Your task to perform on an android device: Do I have any events tomorrow? Image 0: 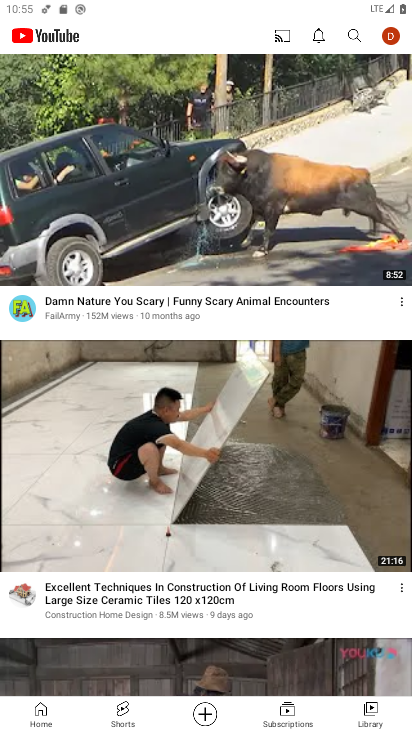
Step 0: press home button
Your task to perform on an android device: Do I have any events tomorrow? Image 1: 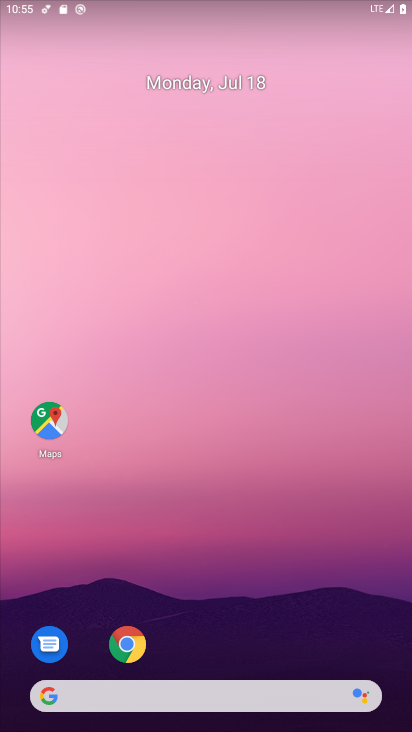
Step 1: drag from (329, 615) to (340, 88)
Your task to perform on an android device: Do I have any events tomorrow? Image 2: 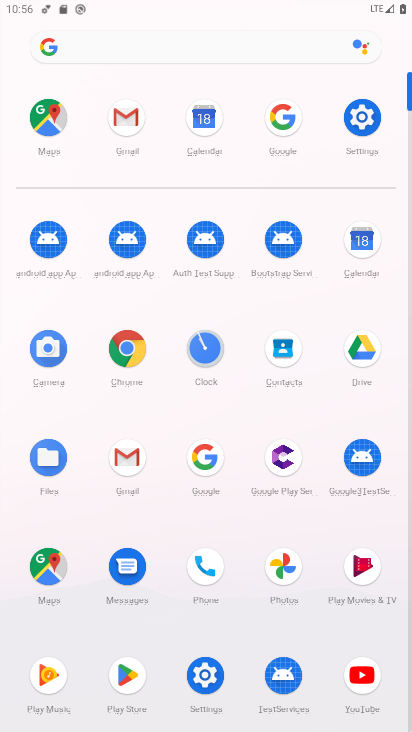
Step 2: click (358, 246)
Your task to perform on an android device: Do I have any events tomorrow? Image 3: 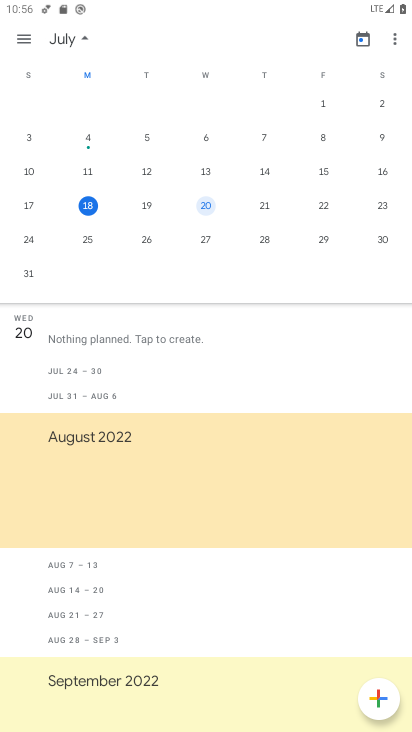
Step 3: click (203, 204)
Your task to perform on an android device: Do I have any events tomorrow? Image 4: 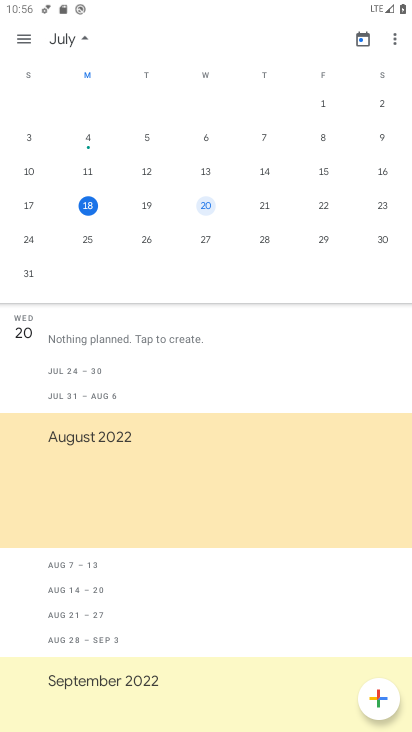
Step 4: task complete